Your task to perform on an android device: Go to network settings Image 0: 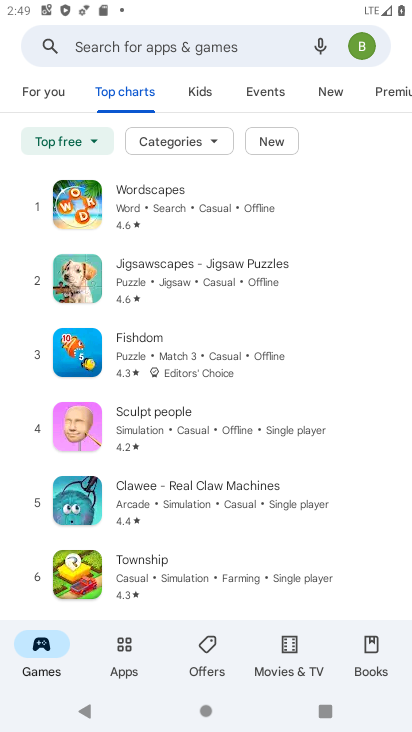
Step 0: press home button
Your task to perform on an android device: Go to network settings Image 1: 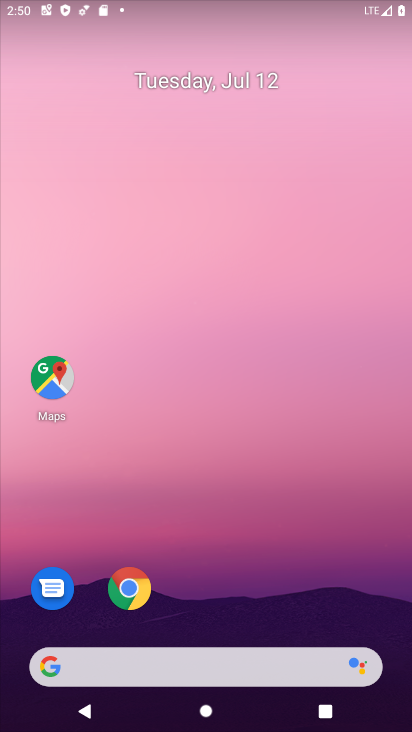
Step 1: drag from (131, 506) to (153, 140)
Your task to perform on an android device: Go to network settings Image 2: 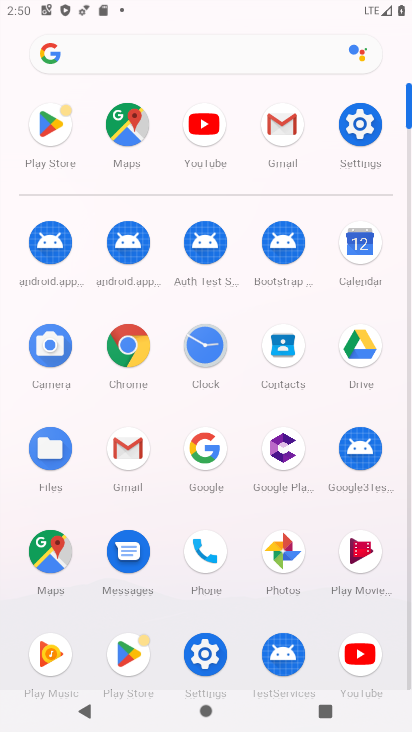
Step 2: click (362, 122)
Your task to perform on an android device: Go to network settings Image 3: 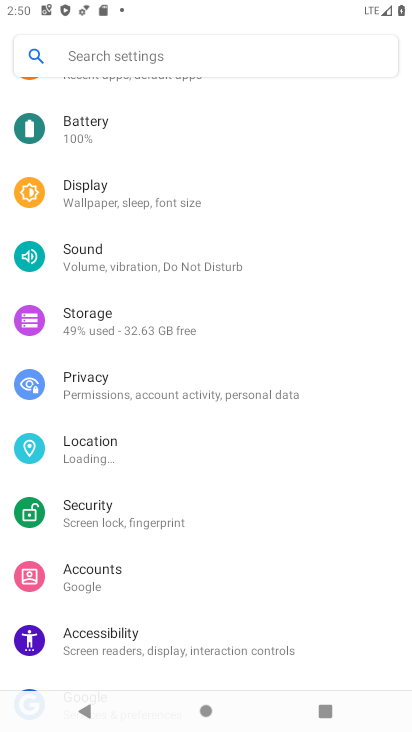
Step 3: drag from (281, 115) to (258, 695)
Your task to perform on an android device: Go to network settings Image 4: 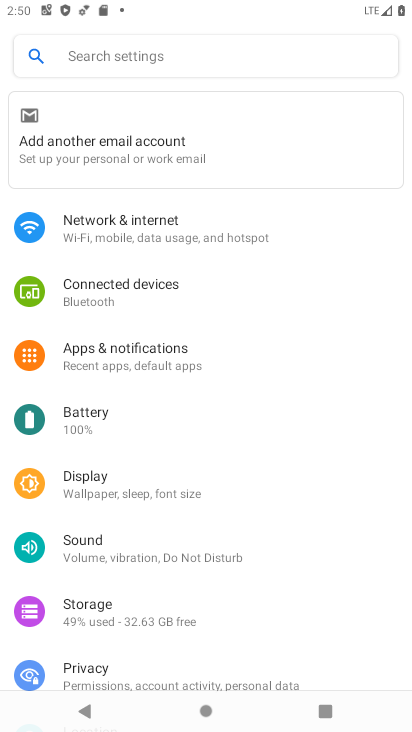
Step 4: click (195, 218)
Your task to perform on an android device: Go to network settings Image 5: 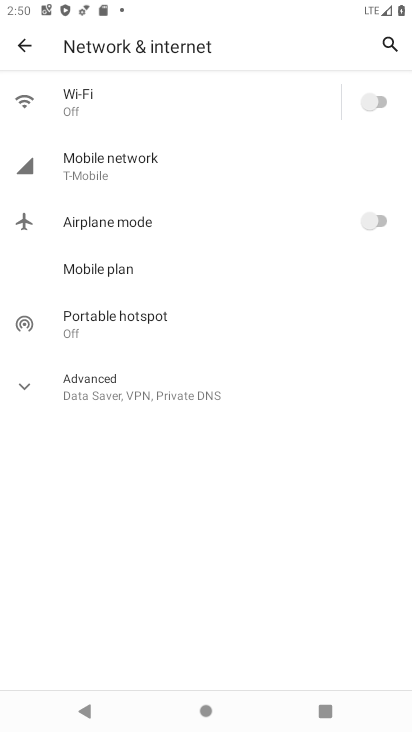
Step 5: task complete